Your task to perform on an android device: Show me popular games on the Play Store Image 0: 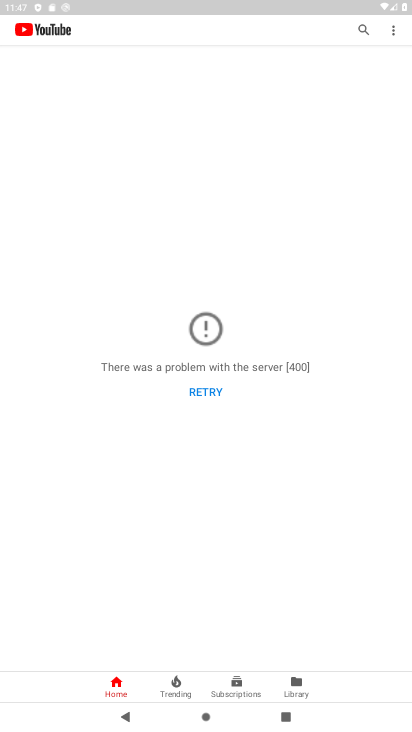
Step 0: press home button
Your task to perform on an android device: Show me popular games on the Play Store Image 1: 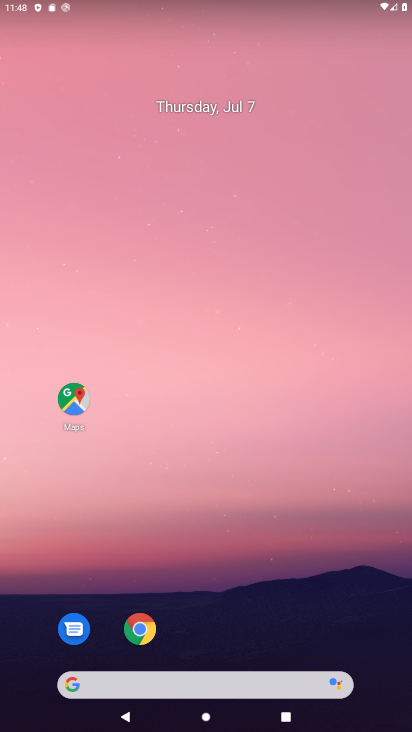
Step 1: drag from (230, 600) to (227, 287)
Your task to perform on an android device: Show me popular games on the Play Store Image 2: 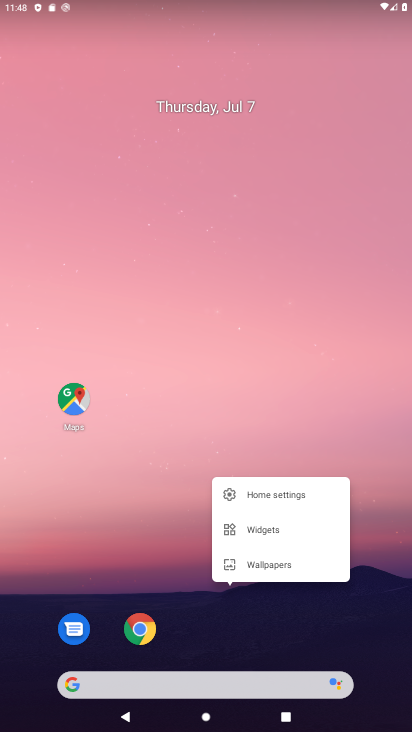
Step 2: drag from (394, 550) to (345, 153)
Your task to perform on an android device: Show me popular games on the Play Store Image 3: 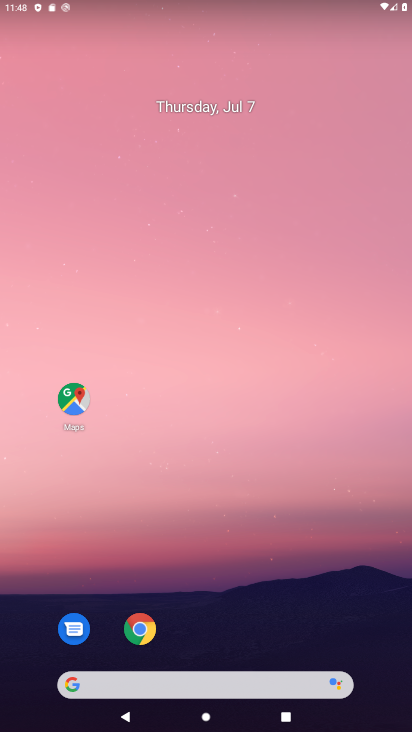
Step 3: drag from (244, 641) to (241, 95)
Your task to perform on an android device: Show me popular games on the Play Store Image 4: 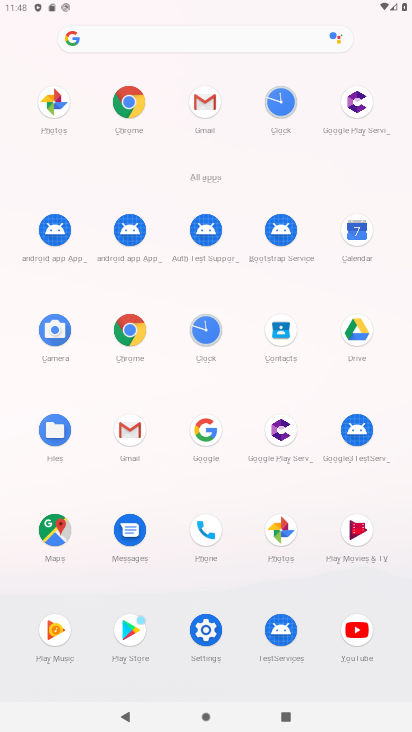
Step 4: click (132, 633)
Your task to perform on an android device: Show me popular games on the Play Store Image 5: 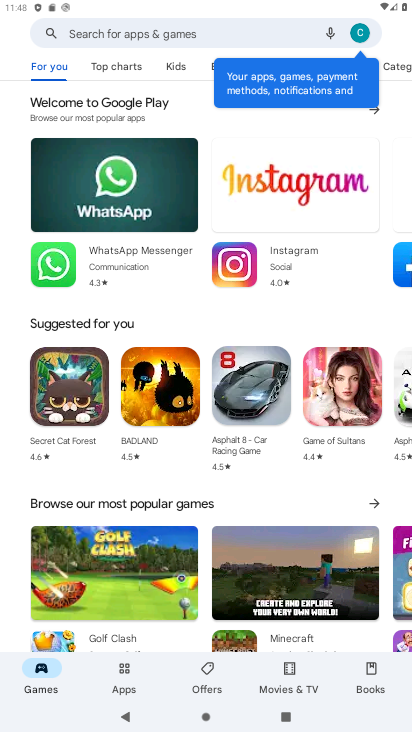
Step 5: click (123, 66)
Your task to perform on an android device: Show me popular games on the Play Store Image 6: 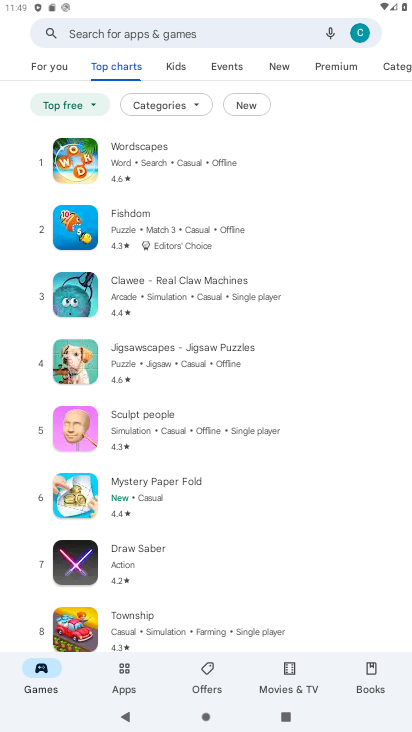
Step 6: task complete